Your task to perform on an android device: Toggle the flashlight Image 0: 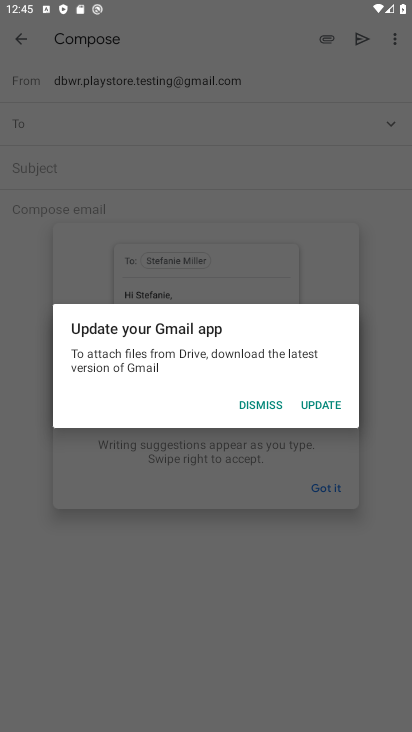
Step 0: press home button
Your task to perform on an android device: Toggle the flashlight Image 1: 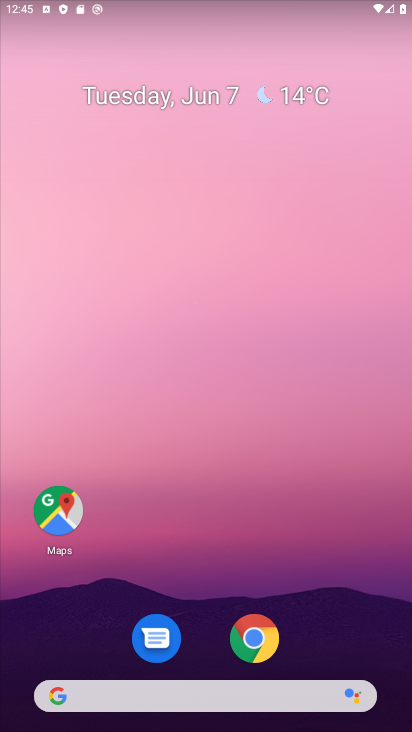
Step 1: drag from (207, 623) to (200, 155)
Your task to perform on an android device: Toggle the flashlight Image 2: 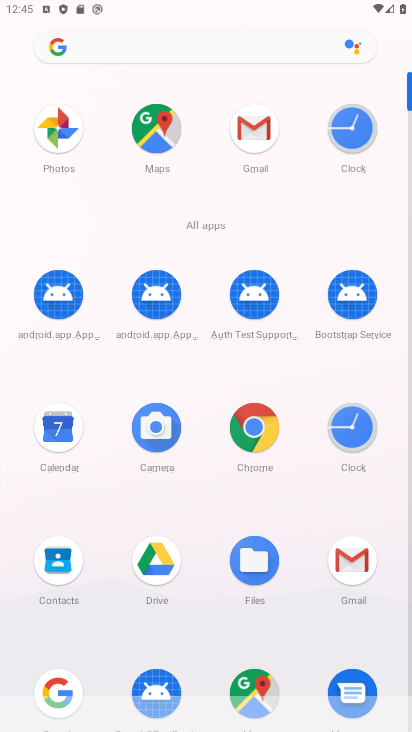
Step 2: drag from (194, 514) to (209, 120)
Your task to perform on an android device: Toggle the flashlight Image 3: 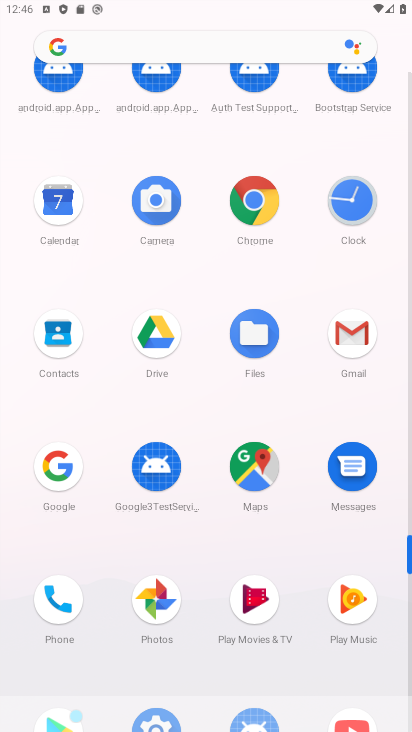
Step 3: drag from (175, 634) to (202, 301)
Your task to perform on an android device: Toggle the flashlight Image 4: 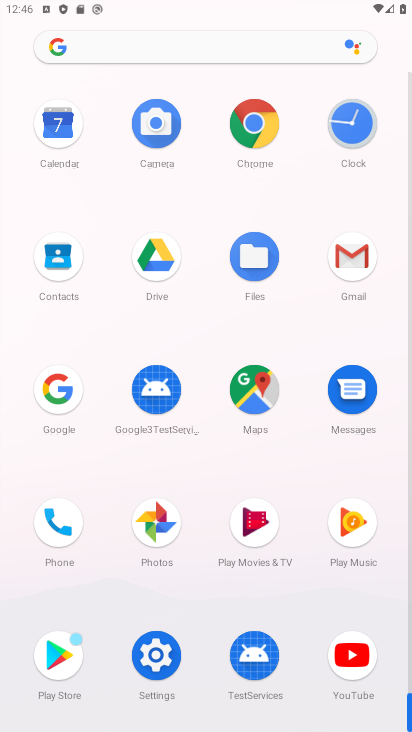
Step 4: click (155, 647)
Your task to perform on an android device: Toggle the flashlight Image 5: 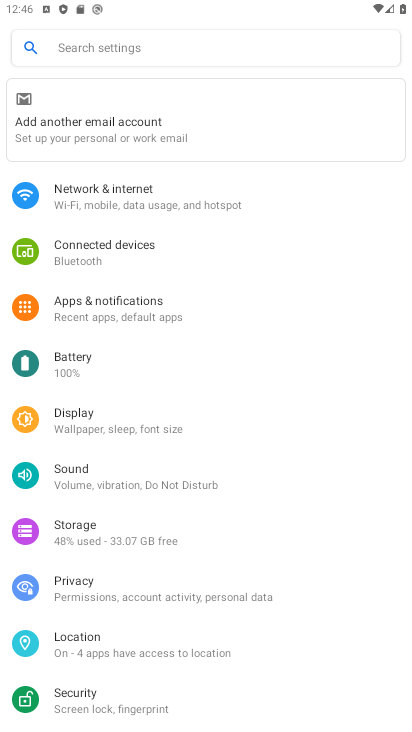
Step 5: click (129, 424)
Your task to perform on an android device: Toggle the flashlight Image 6: 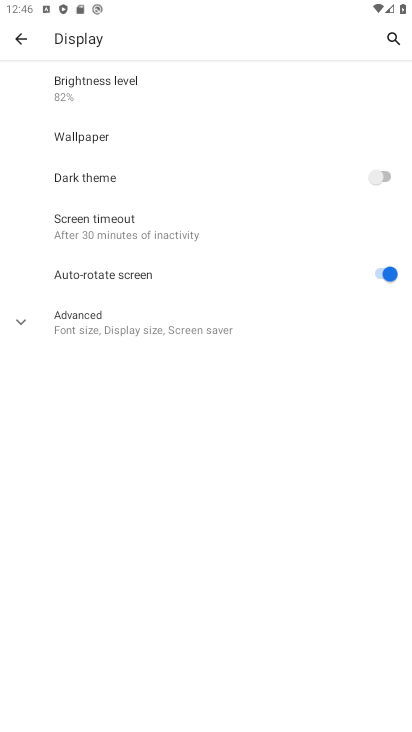
Step 6: press home button
Your task to perform on an android device: Toggle the flashlight Image 7: 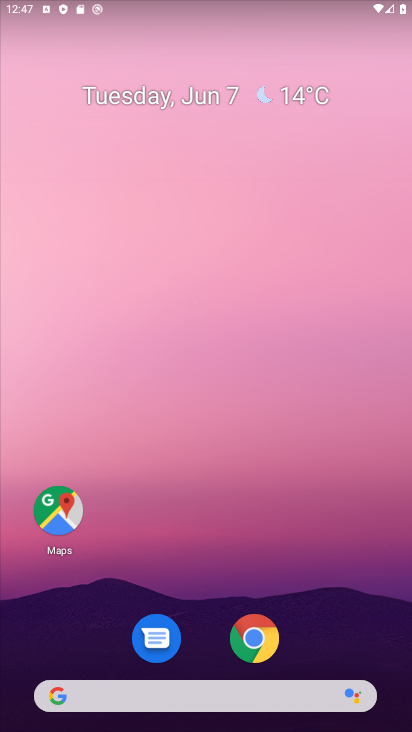
Step 7: drag from (195, 449) to (195, 235)
Your task to perform on an android device: Toggle the flashlight Image 8: 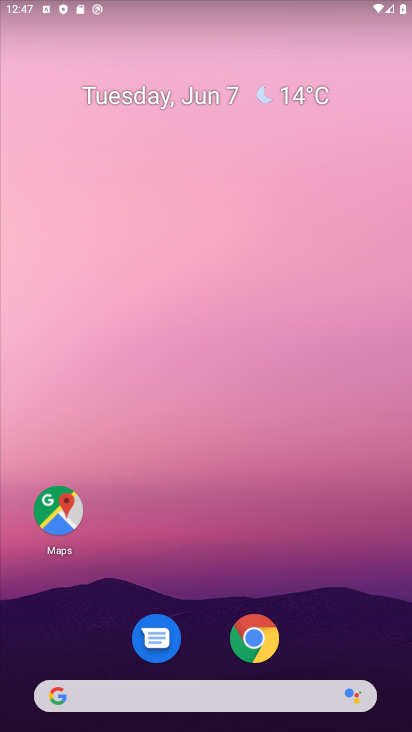
Step 8: drag from (212, 615) to (192, 201)
Your task to perform on an android device: Toggle the flashlight Image 9: 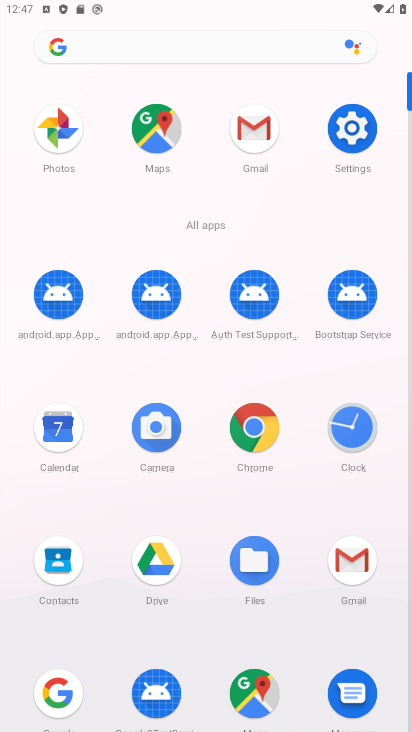
Step 9: click (343, 137)
Your task to perform on an android device: Toggle the flashlight Image 10: 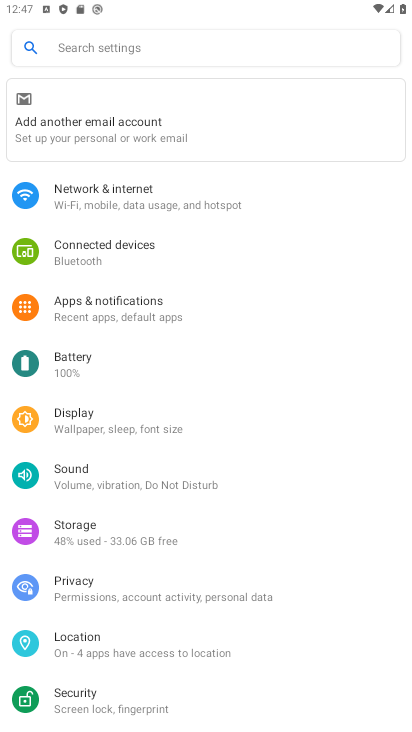
Step 10: click (114, 410)
Your task to perform on an android device: Toggle the flashlight Image 11: 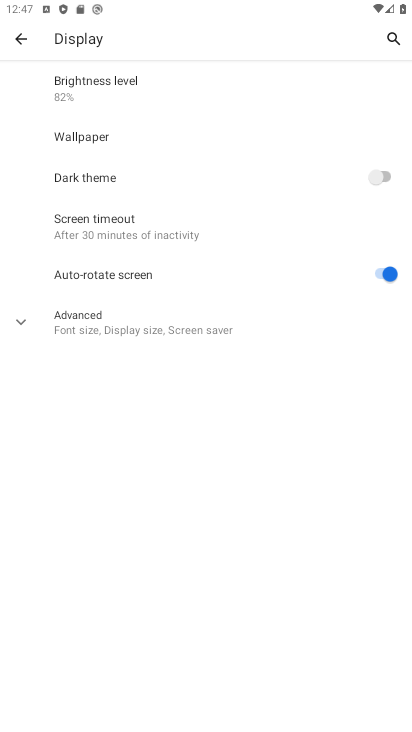
Step 11: task complete